Your task to perform on an android device: manage bookmarks in the chrome app Image 0: 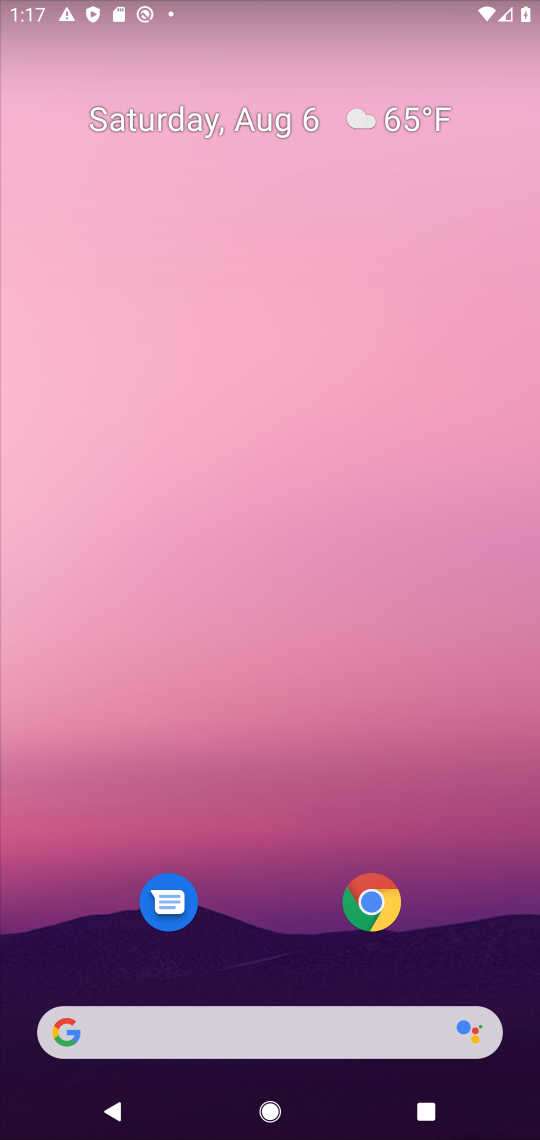
Step 0: click (374, 904)
Your task to perform on an android device: manage bookmarks in the chrome app Image 1: 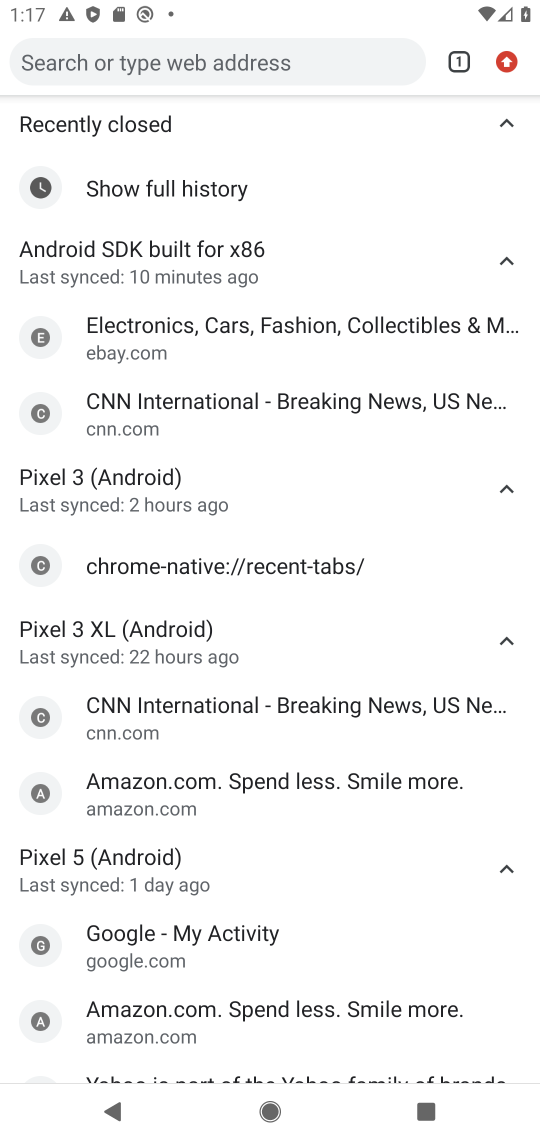
Step 1: press home button
Your task to perform on an android device: manage bookmarks in the chrome app Image 2: 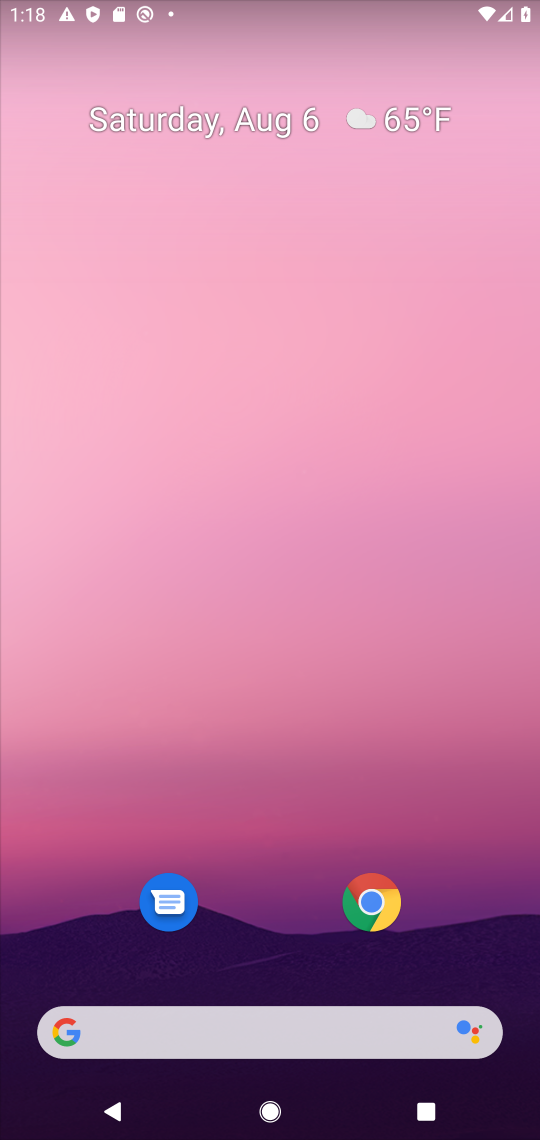
Step 2: click (367, 902)
Your task to perform on an android device: manage bookmarks in the chrome app Image 3: 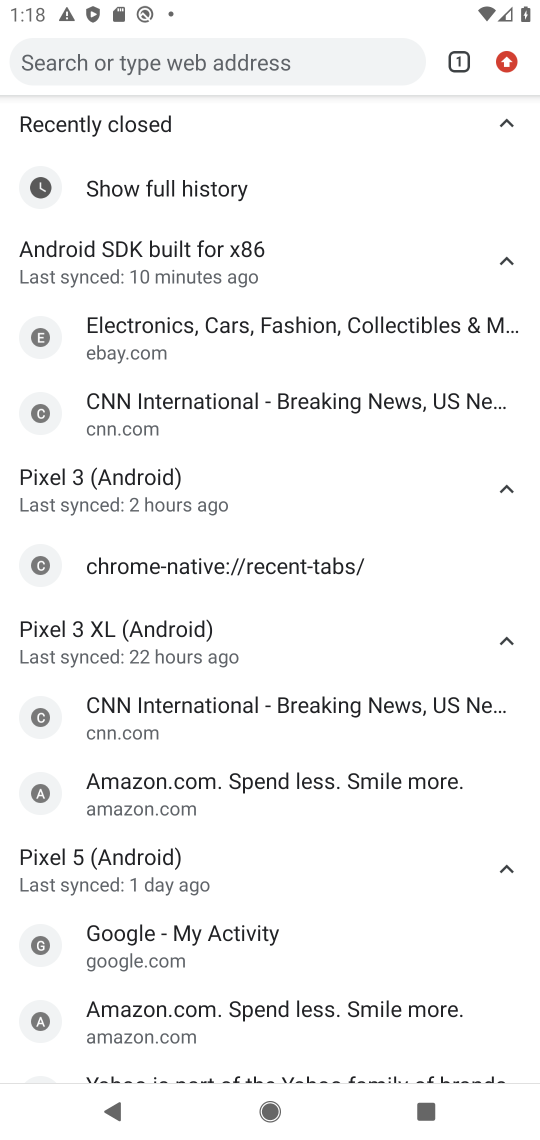
Step 3: click (506, 58)
Your task to perform on an android device: manage bookmarks in the chrome app Image 4: 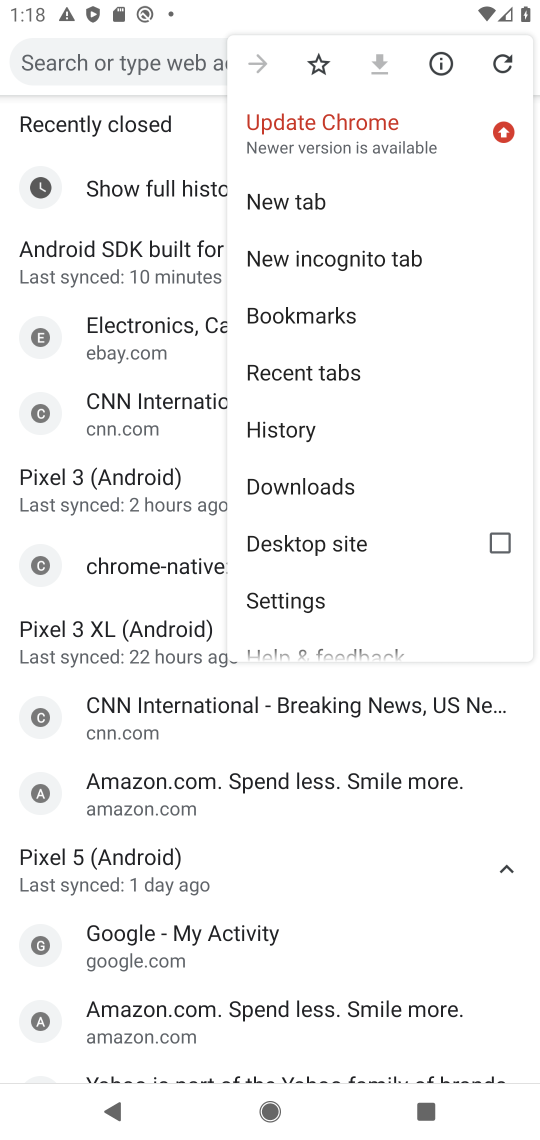
Step 4: click (291, 307)
Your task to perform on an android device: manage bookmarks in the chrome app Image 5: 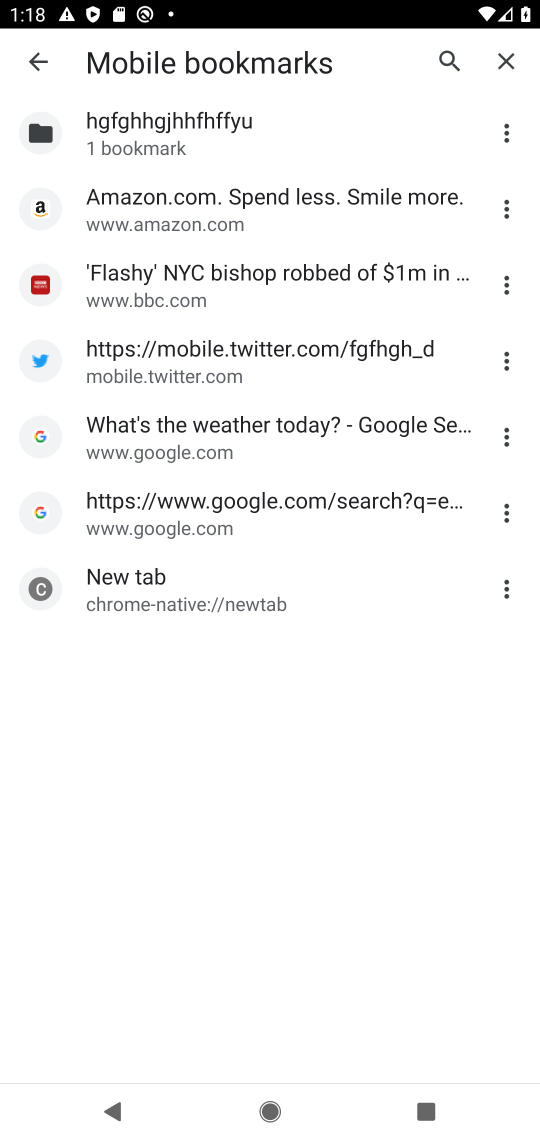
Step 5: click (505, 133)
Your task to perform on an android device: manage bookmarks in the chrome app Image 6: 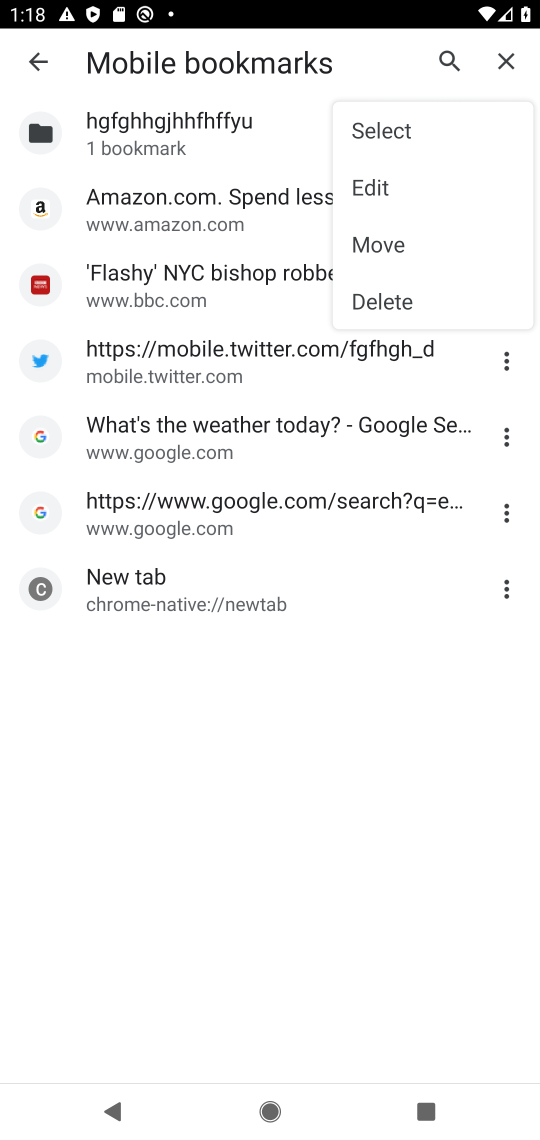
Step 6: click (386, 174)
Your task to perform on an android device: manage bookmarks in the chrome app Image 7: 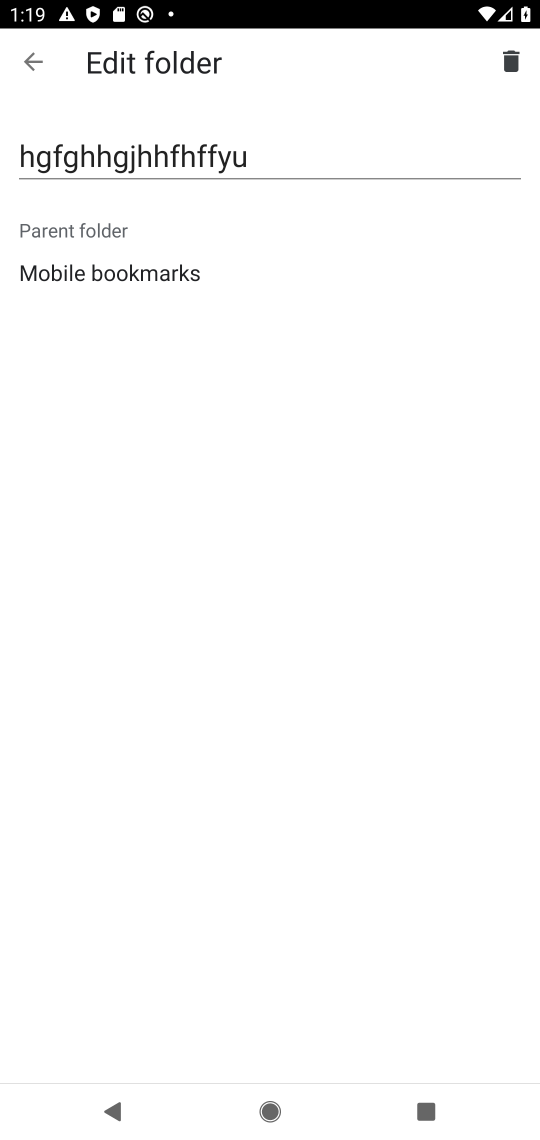
Step 7: task complete